Your task to perform on an android device: Show me recent news Image 0: 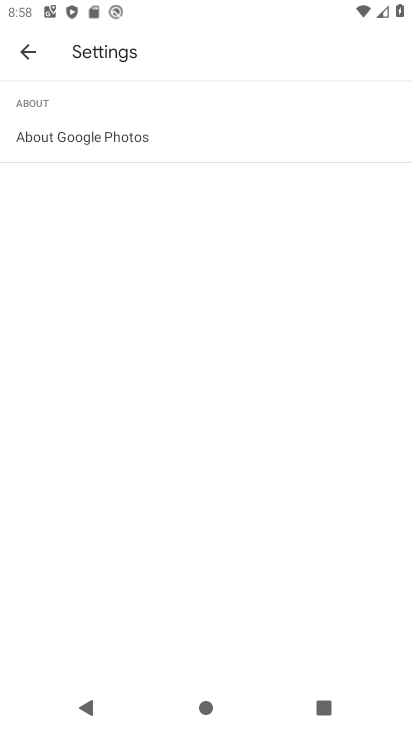
Step 0: press home button
Your task to perform on an android device: Show me recent news Image 1: 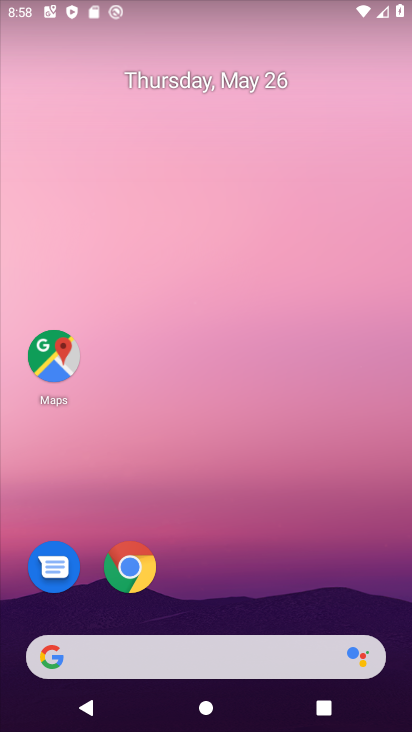
Step 1: click (52, 659)
Your task to perform on an android device: Show me recent news Image 2: 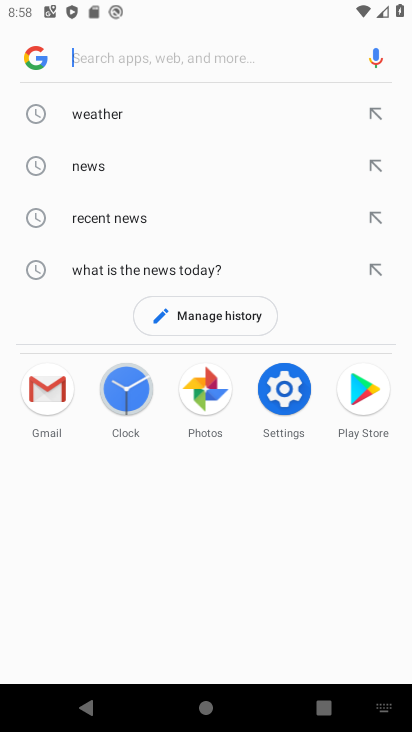
Step 2: click (122, 220)
Your task to perform on an android device: Show me recent news Image 3: 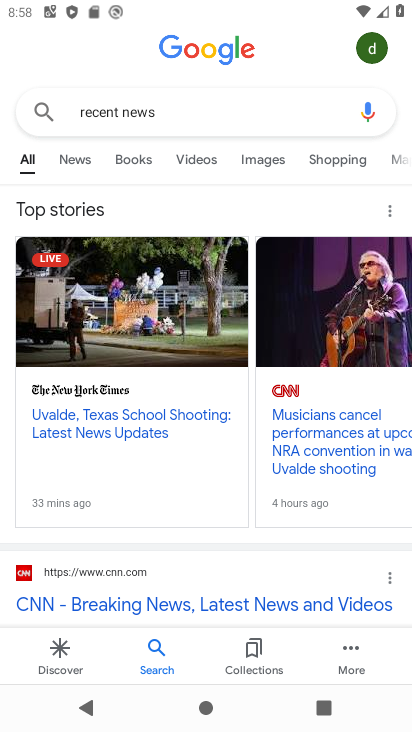
Step 3: click (73, 163)
Your task to perform on an android device: Show me recent news Image 4: 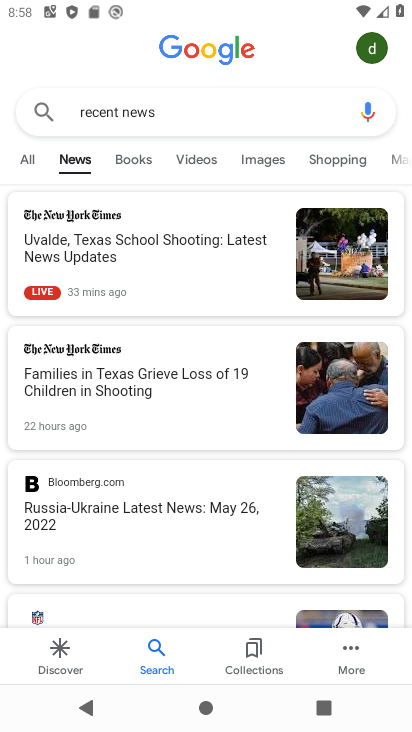
Step 4: task complete